Your task to perform on an android device: turn on javascript in the chrome app Image 0: 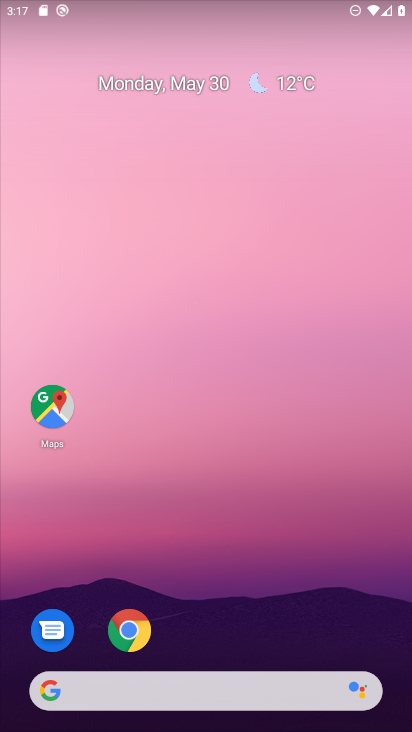
Step 0: click (129, 629)
Your task to perform on an android device: turn on javascript in the chrome app Image 1: 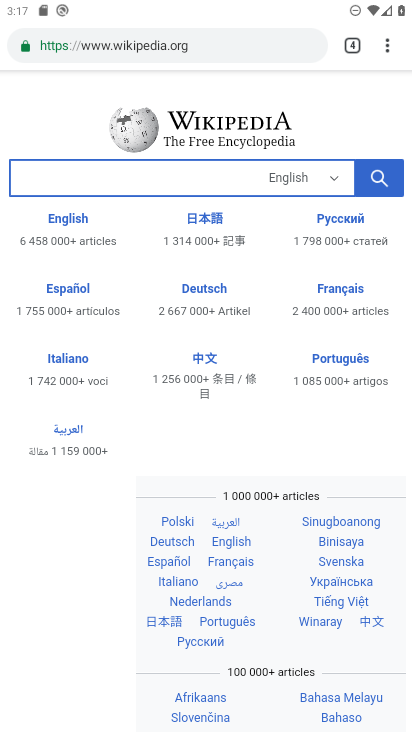
Step 1: click (388, 55)
Your task to perform on an android device: turn on javascript in the chrome app Image 2: 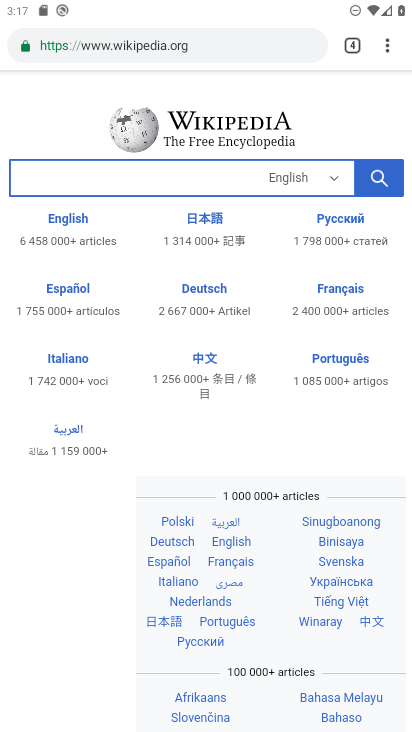
Step 2: drag from (388, 55) to (225, 549)
Your task to perform on an android device: turn on javascript in the chrome app Image 3: 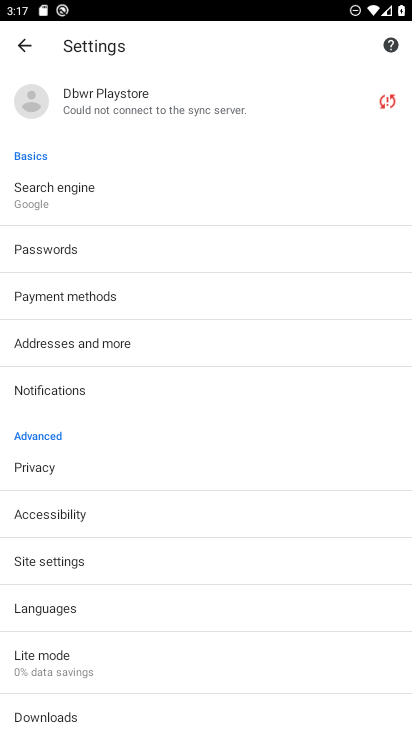
Step 3: click (49, 555)
Your task to perform on an android device: turn on javascript in the chrome app Image 4: 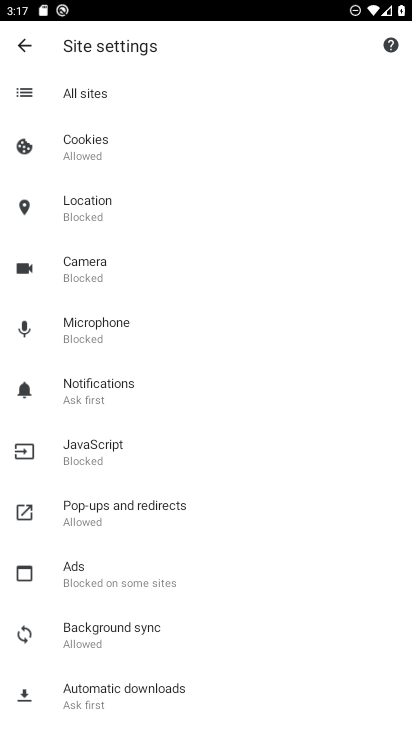
Step 4: click (80, 455)
Your task to perform on an android device: turn on javascript in the chrome app Image 5: 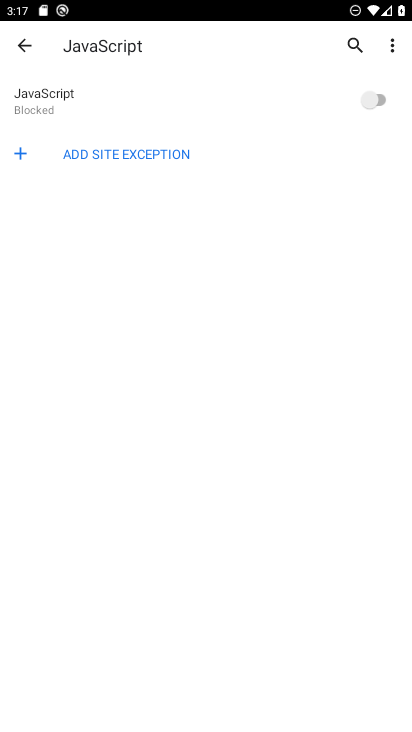
Step 5: click (371, 97)
Your task to perform on an android device: turn on javascript in the chrome app Image 6: 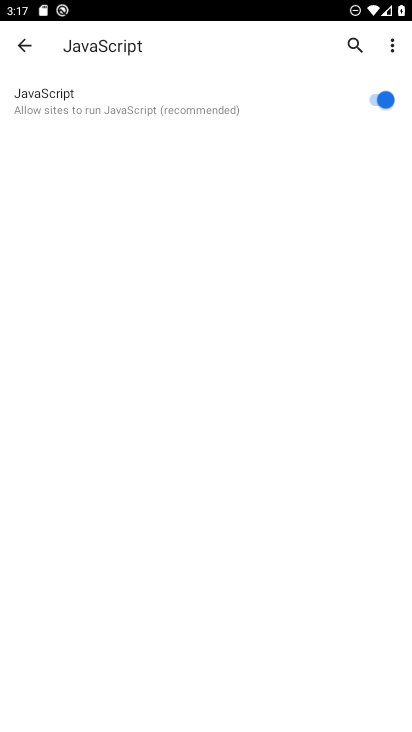
Step 6: task complete